Your task to perform on an android device: open app "Pluto TV - Live TV and Movies" Image 0: 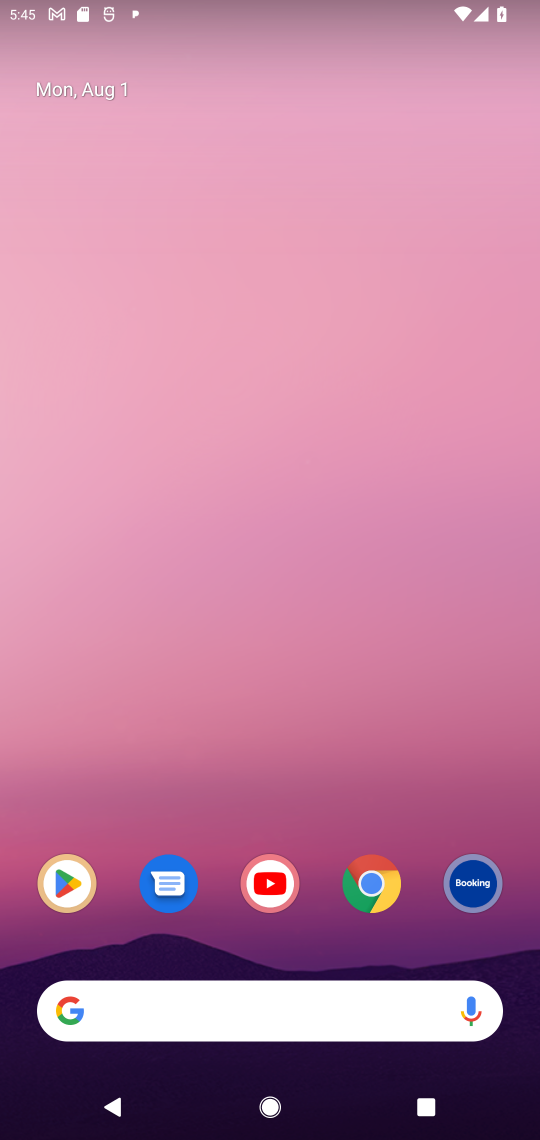
Step 0: click (56, 893)
Your task to perform on an android device: open app "Pluto TV - Live TV and Movies" Image 1: 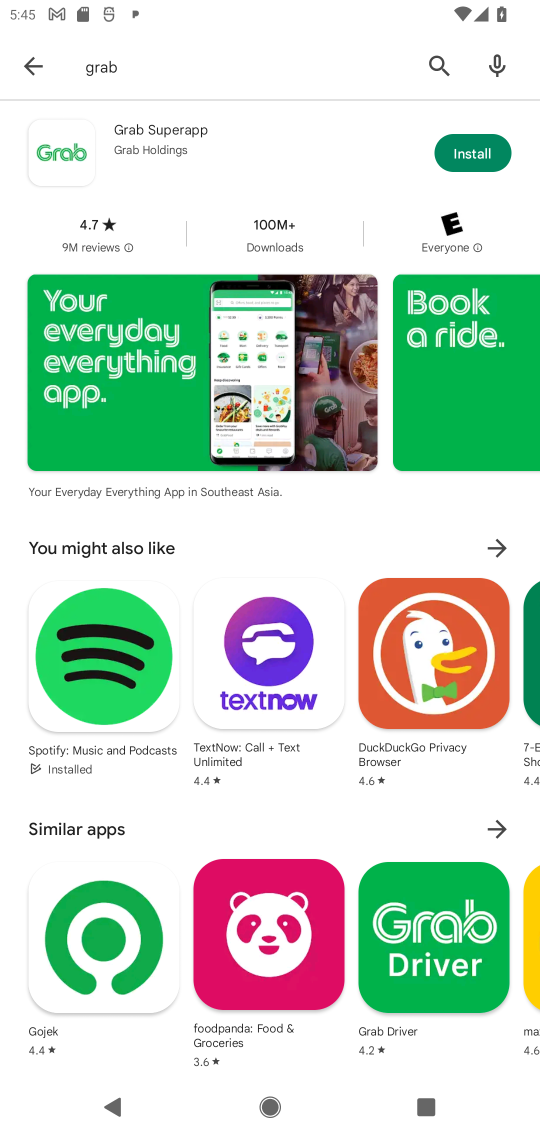
Step 1: click (29, 49)
Your task to perform on an android device: open app "Pluto TV - Live TV and Movies" Image 2: 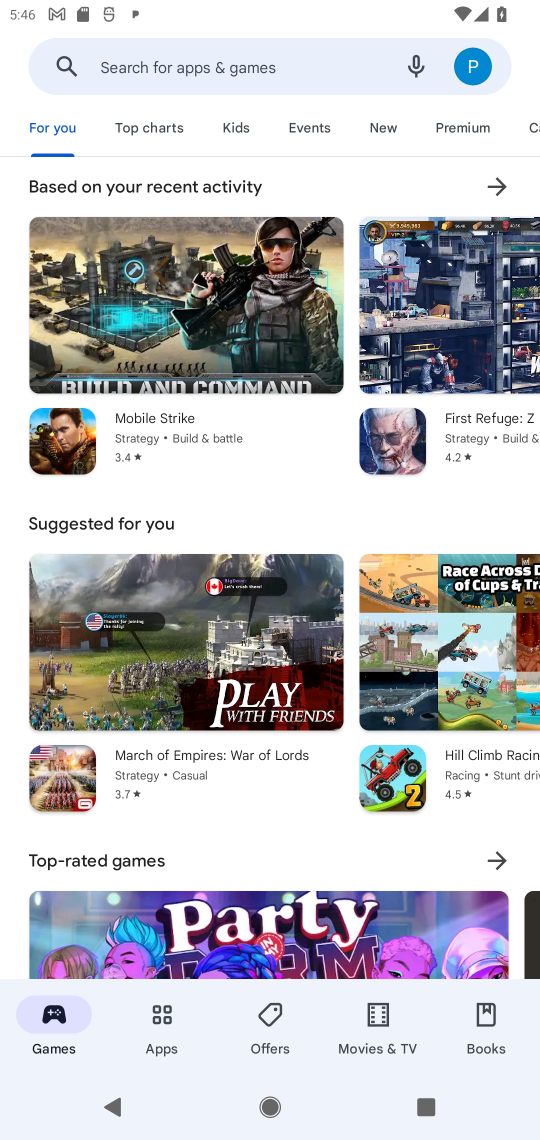
Step 2: click (28, 61)
Your task to perform on an android device: open app "Pluto TV - Live TV and Movies" Image 3: 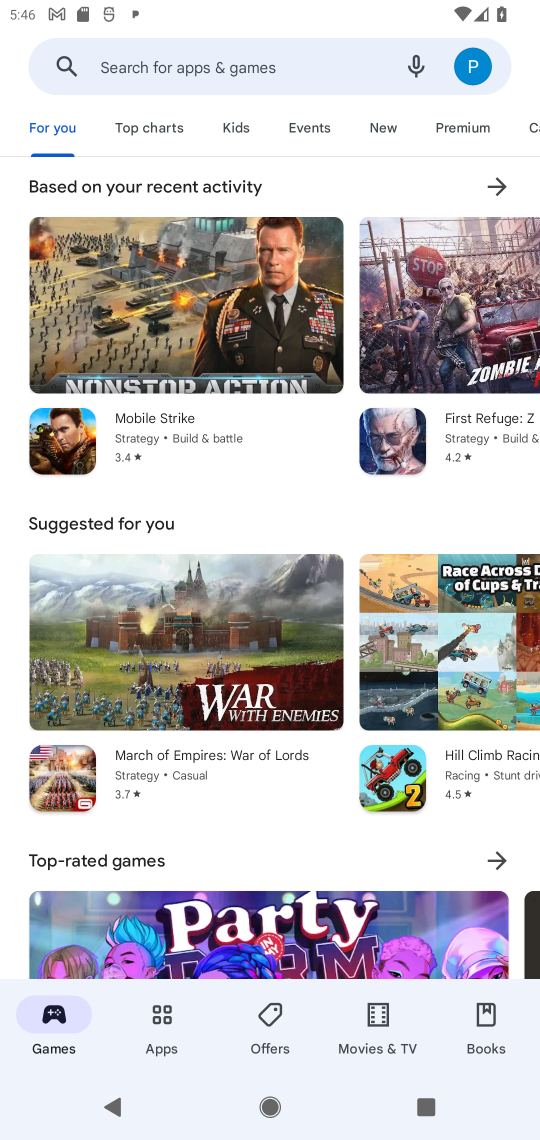
Step 3: click (194, 60)
Your task to perform on an android device: open app "Pluto TV - Live TV and Movies" Image 4: 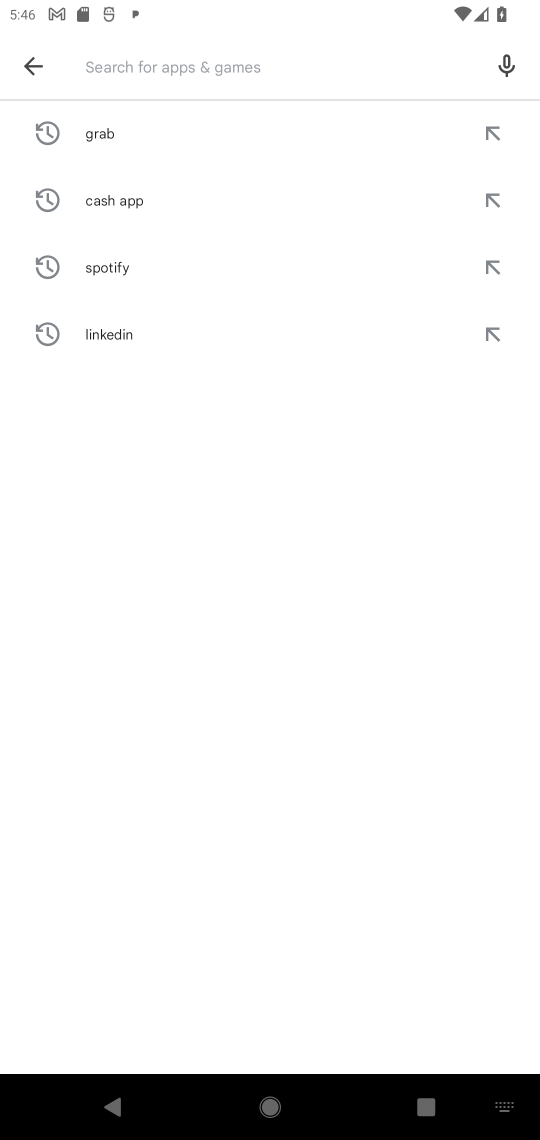
Step 4: type "Pluto TV - Live TV and Movies"
Your task to perform on an android device: open app "Pluto TV - Live TV and Movies" Image 5: 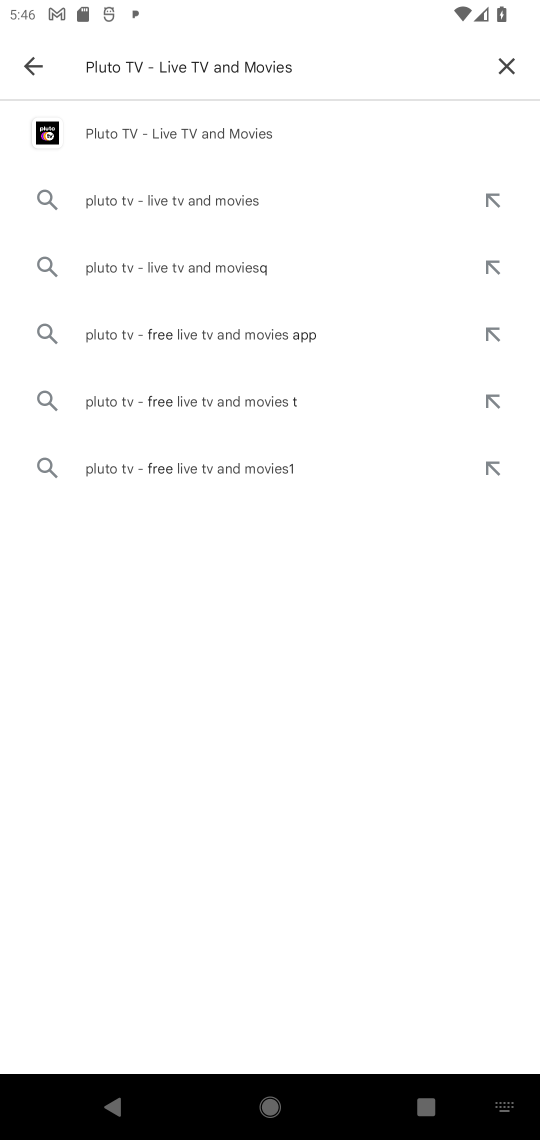
Step 5: click (177, 134)
Your task to perform on an android device: open app "Pluto TV - Live TV and Movies" Image 6: 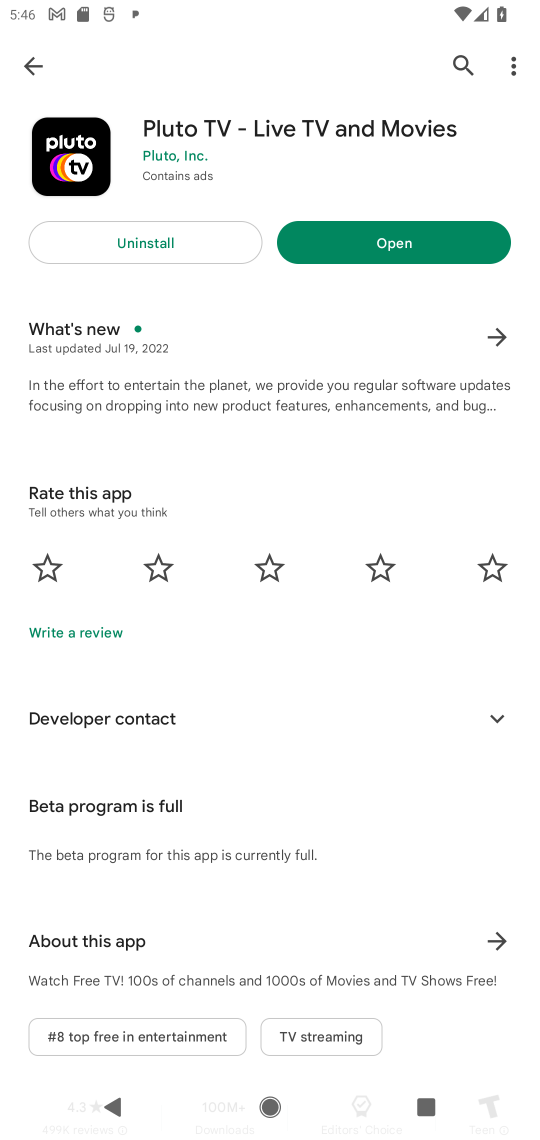
Step 6: click (391, 254)
Your task to perform on an android device: open app "Pluto TV - Live TV and Movies" Image 7: 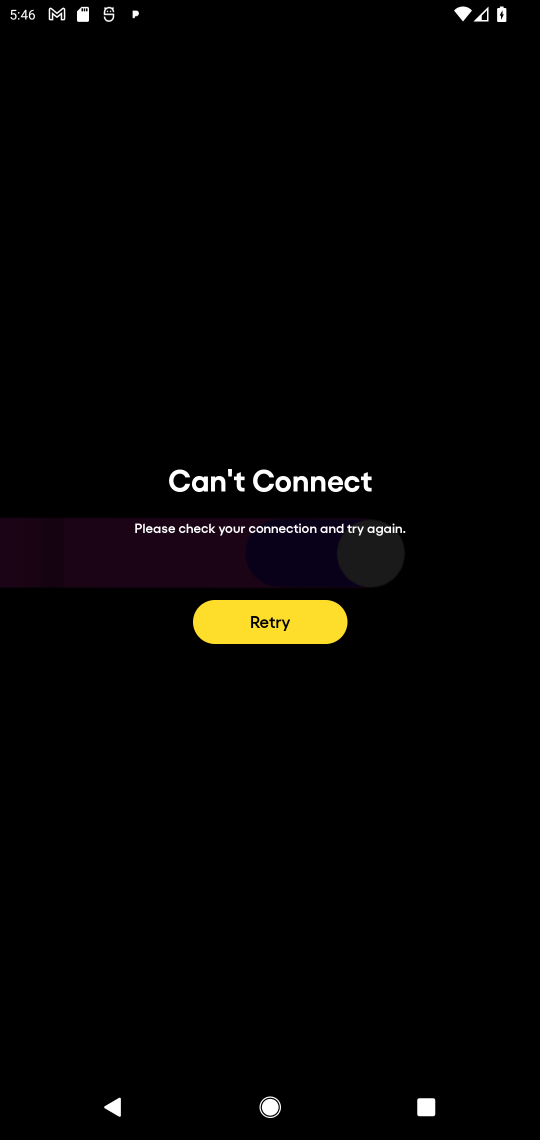
Step 7: task complete